Your task to perform on an android device: turn on wifi Image 0: 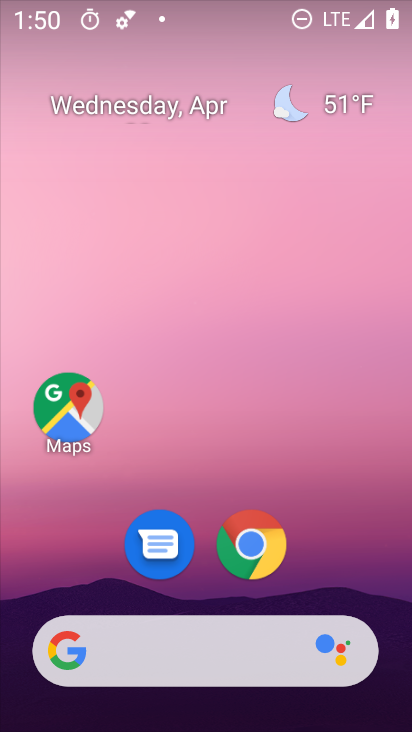
Step 0: drag from (346, 566) to (337, 278)
Your task to perform on an android device: turn on wifi Image 1: 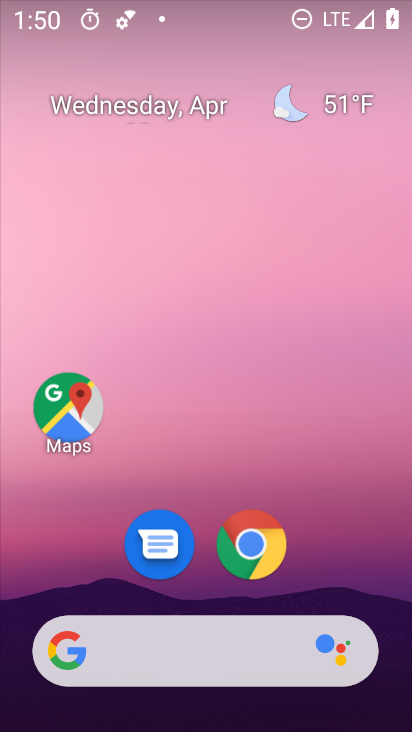
Step 1: drag from (328, 486) to (319, 140)
Your task to perform on an android device: turn on wifi Image 2: 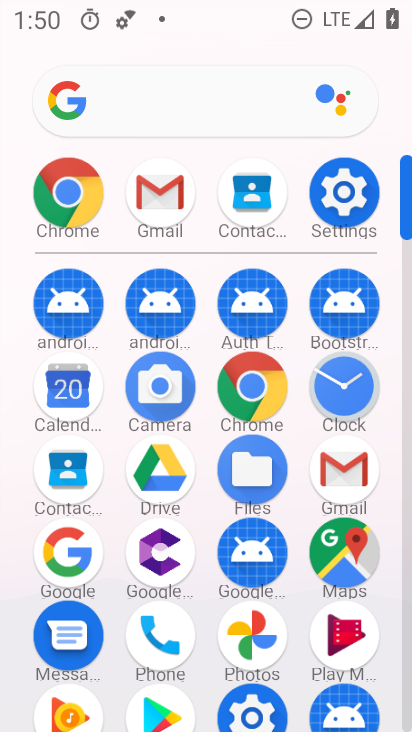
Step 2: click (342, 202)
Your task to perform on an android device: turn on wifi Image 3: 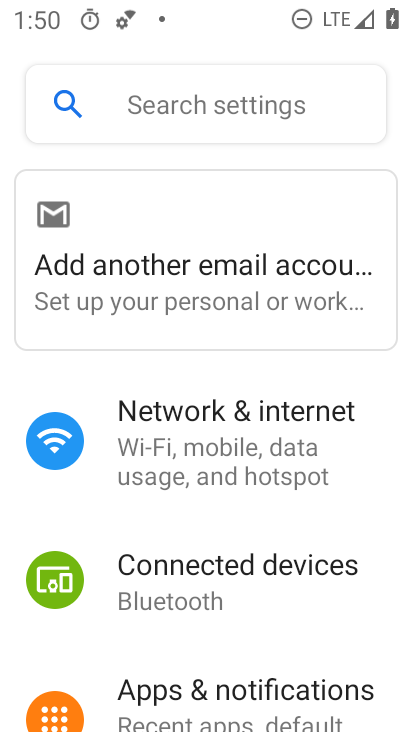
Step 3: drag from (377, 620) to (376, 429)
Your task to perform on an android device: turn on wifi Image 4: 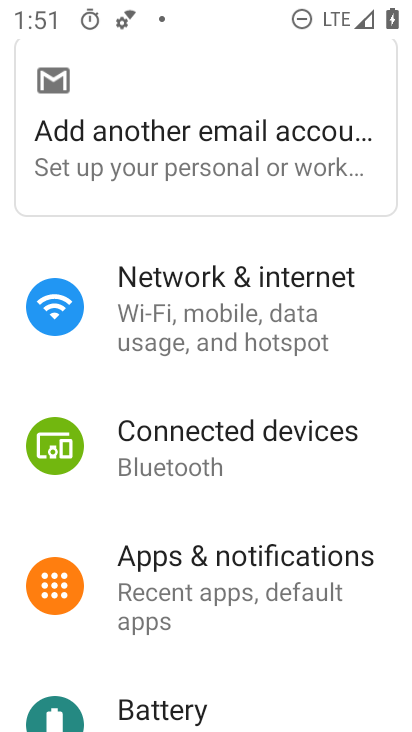
Step 4: drag from (364, 653) to (365, 461)
Your task to perform on an android device: turn on wifi Image 5: 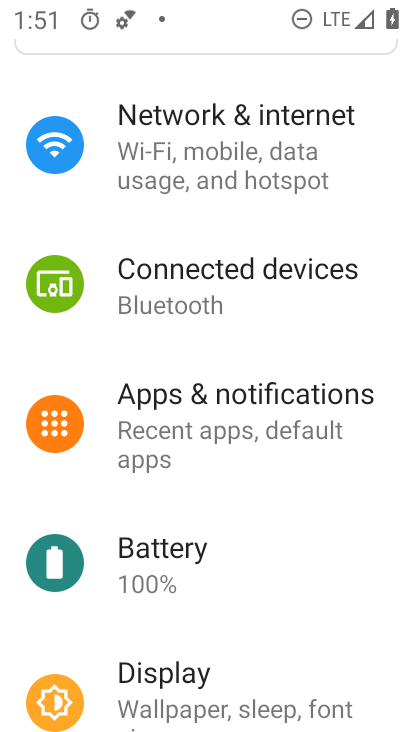
Step 5: drag from (337, 610) to (361, 387)
Your task to perform on an android device: turn on wifi Image 6: 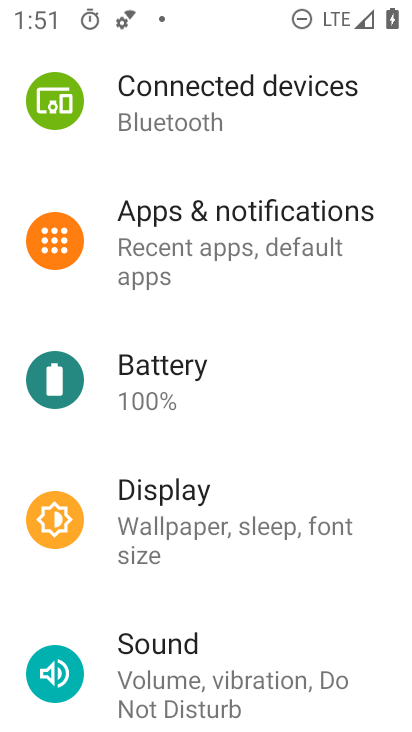
Step 6: drag from (367, 654) to (380, 469)
Your task to perform on an android device: turn on wifi Image 7: 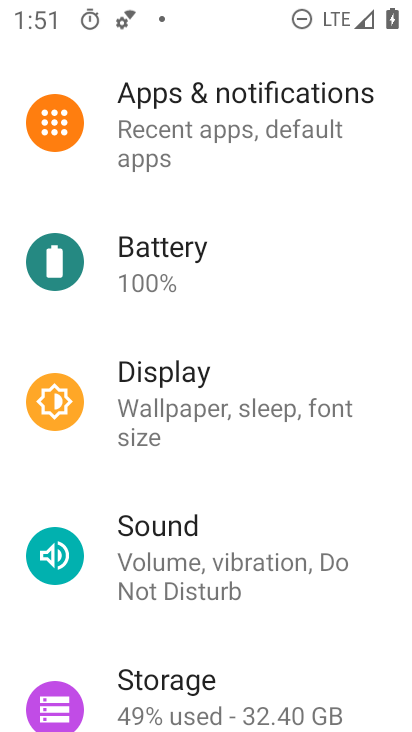
Step 7: drag from (380, 665) to (380, 510)
Your task to perform on an android device: turn on wifi Image 8: 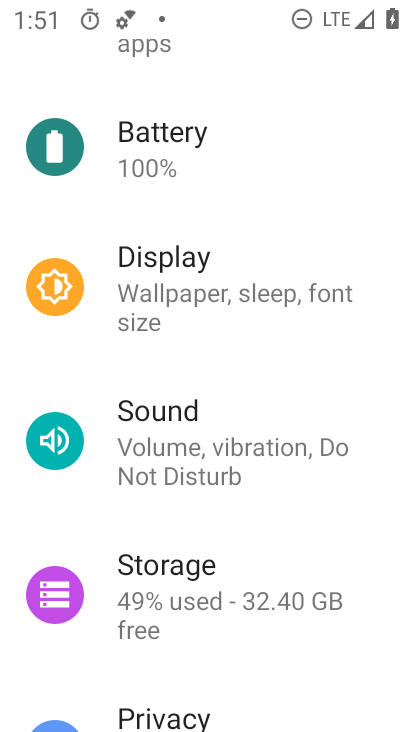
Step 8: drag from (363, 683) to (377, 544)
Your task to perform on an android device: turn on wifi Image 9: 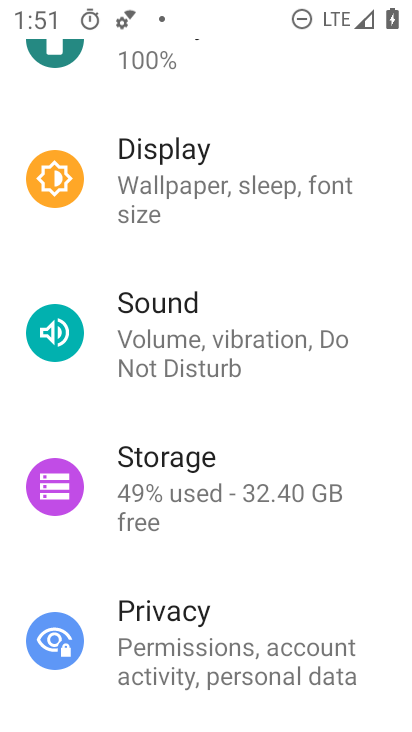
Step 9: drag from (345, 235) to (355, 426)
Your task to perform on an android device: turn on wifi Image 10: 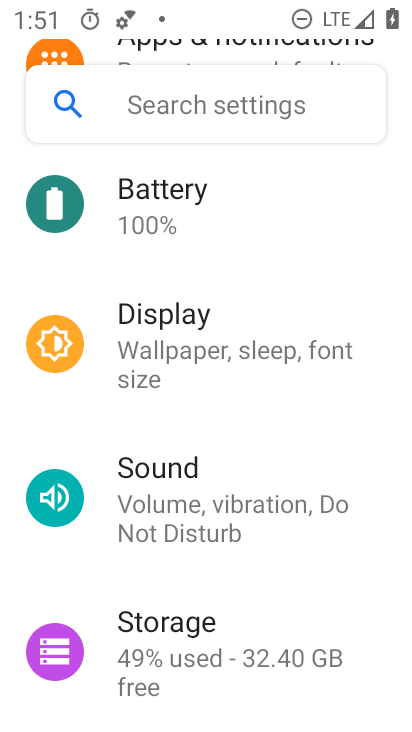
Step 10: drag from (363, 234) to (368, 412)
Your task to perform on an android device: turn on wifi Image 11: 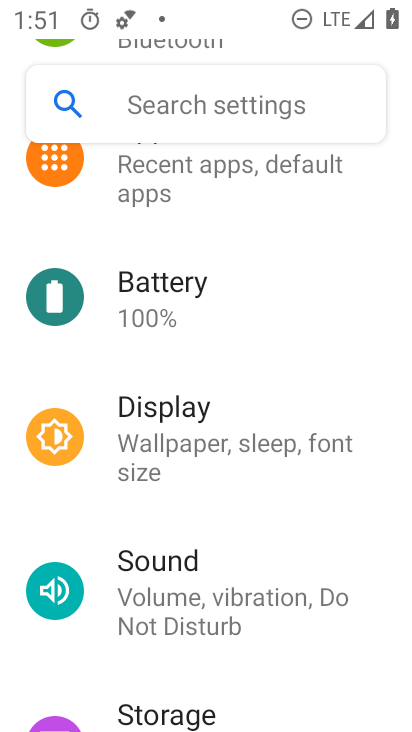
Step 11: drag from (374, 201) to (379, 387)
Your task to perform on an android device: turn on wifi Image 12: 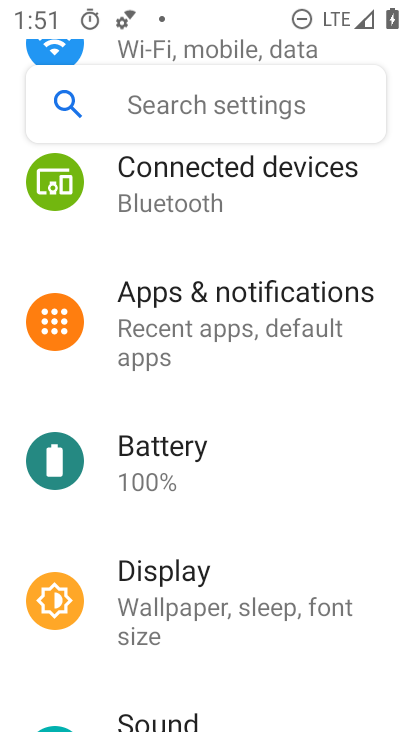
Step 12: drag from (381, 192) to (363, 415)
Your task to perform on an android device: turn on wifi Image 13: 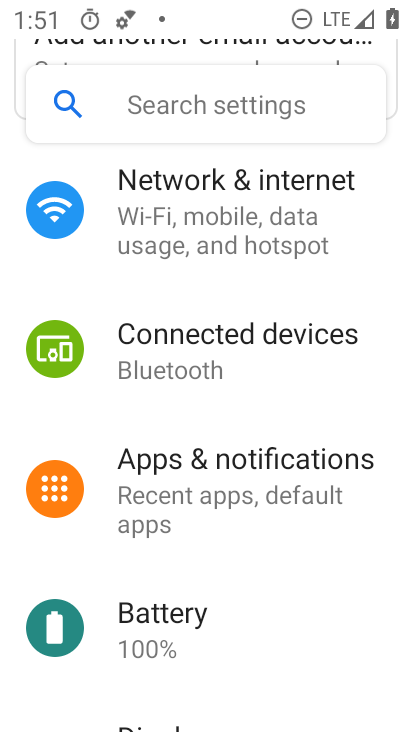
Step 13: drag from (393, 206) to (378, 360)
Your task to perform on an android device: turn on wifi Image 14: 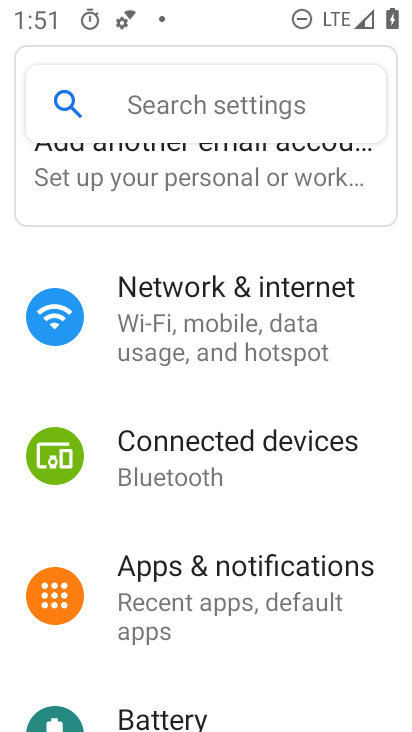
Step 14: click (251, 320)
Your task to perform on an android device: turn on wifi Image 15: 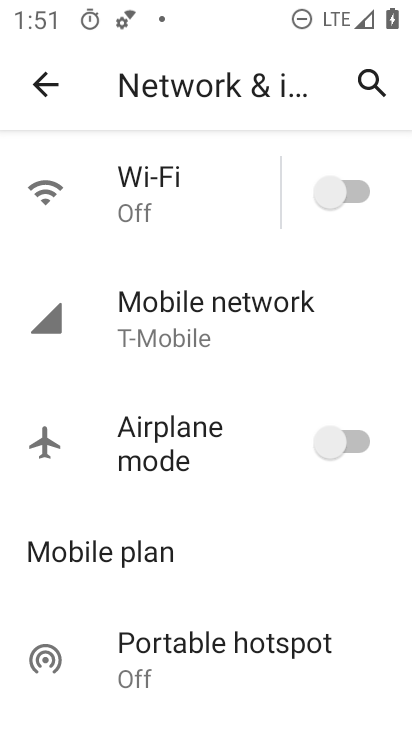
Step 15: click (327, 190)
Your task to perform on an android device: turn on wifi Image 16: 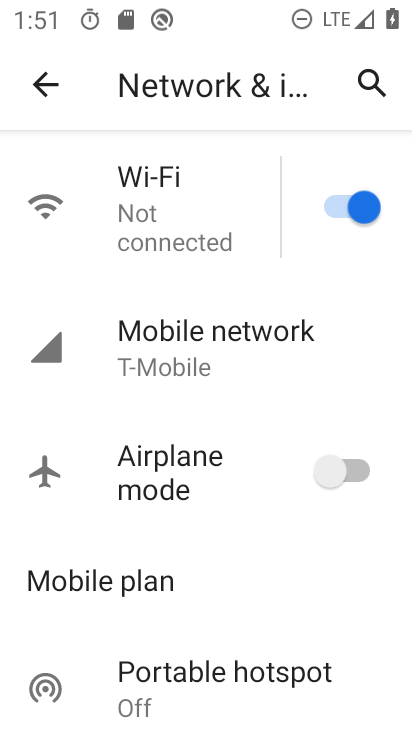
Step 16: task complete